Your task to perform on an android device: turn on javascript in the chrome app Image 0: 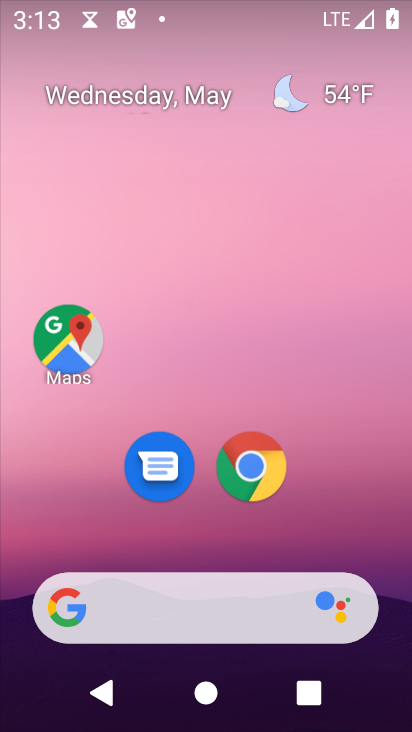
Step 0: click (269, 452)
Your task to perform on an android device: turn on javascript in the chrome app Image 1: 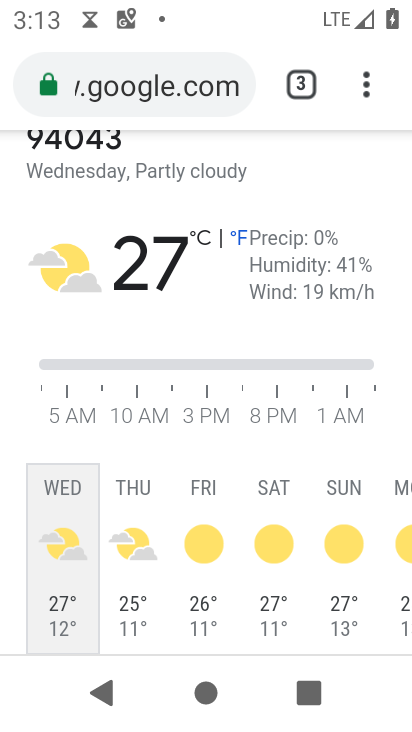
Step 1: click (377, 90)
Your task to perform on an android device: turn on javascript in the chrome app Image 2: 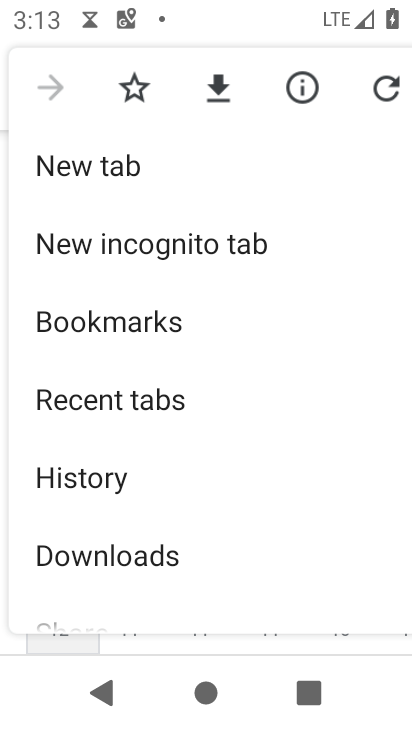
Step 2: drag from (298, 592) to (267, 196)
Your task to perform on an android device: turn on javascript in the chrome app Image 3: 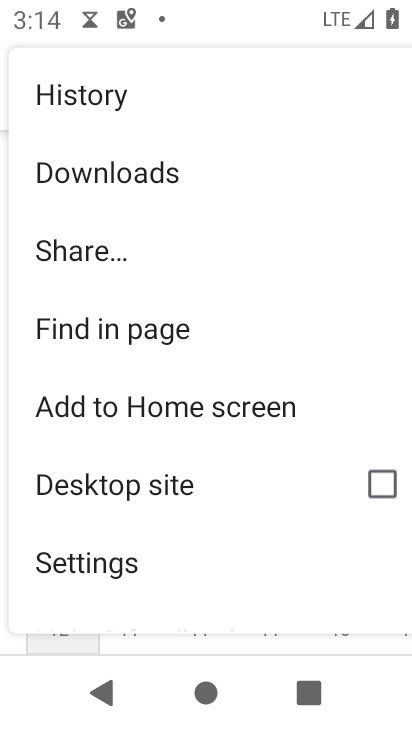
Step 3: click (176, 547)
Your task to perform on an android device: turn on javascript in the chrome app Image 4: 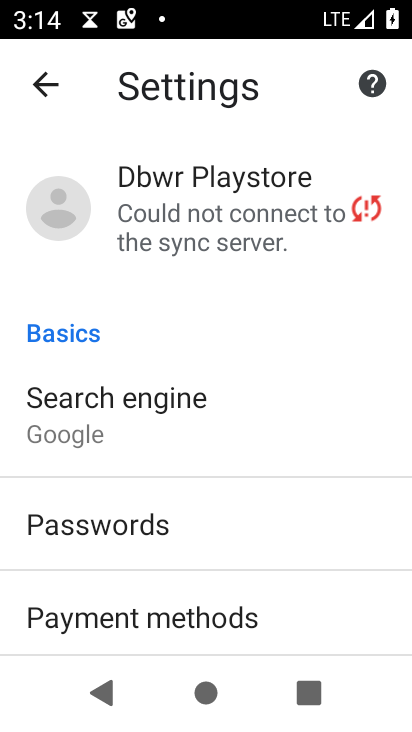
Step 4: drag from (322, 647) to (311, 247)
Your task to perform on an android device: turn on javascript in the chrome app Image 5: 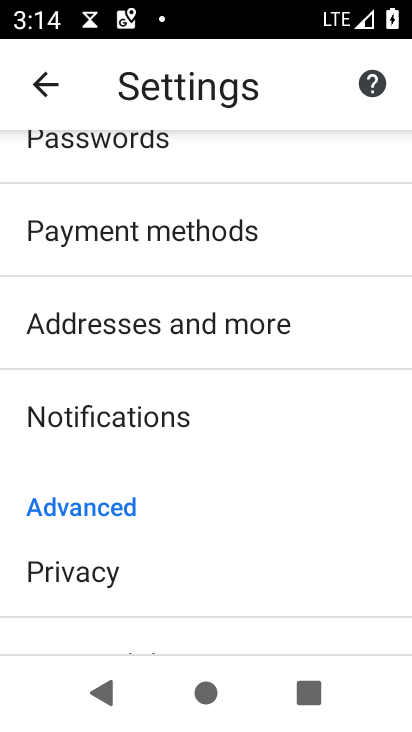
Step 5: drag from (295, 497) to (273, 173)
Your task to perform on an android device: turn on javascript in the chrome app Image 6: 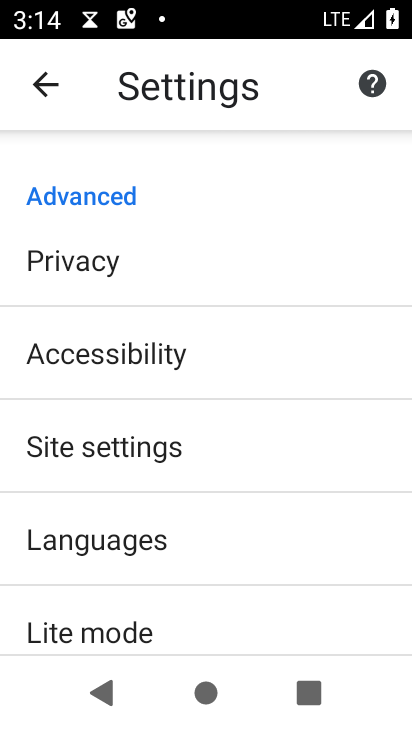
Step 6: click (253, 451)
Your task to perform on an android device: turn on javascript in the chrome app Image 7: 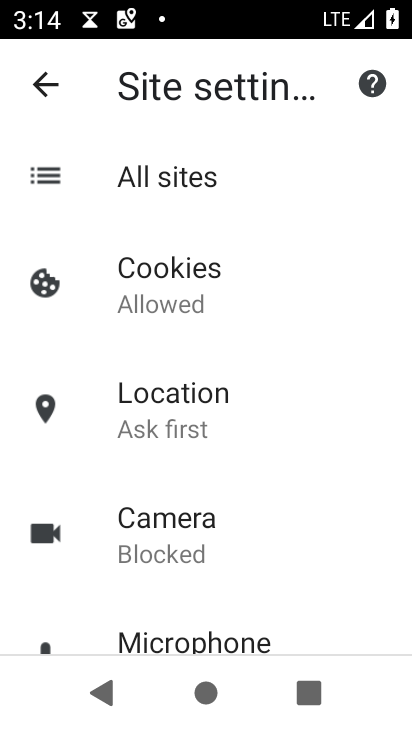
Step 7: drag from (261, 554) to (231, 195)
Your task to perform on an android device: turn on javascript in the chrome app Image 8: 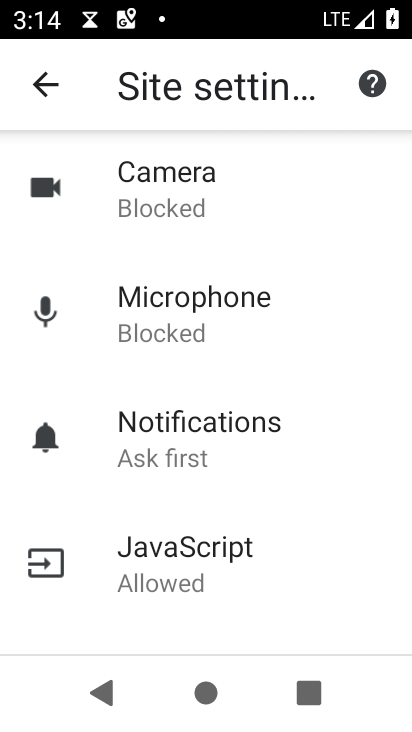
Step 8: click (281, 564)
Your task to perform on an android device: turn on javascript in the chrome app Image 9: 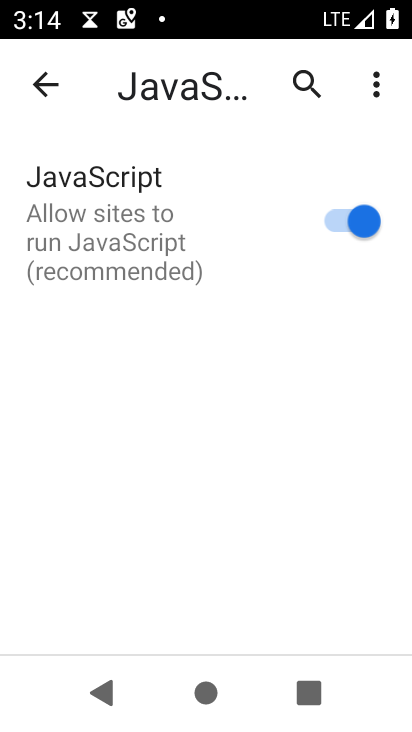
Step 9: task complete